Your task to perform on an android device: Set the phone to "Do not disturb". Image 0: 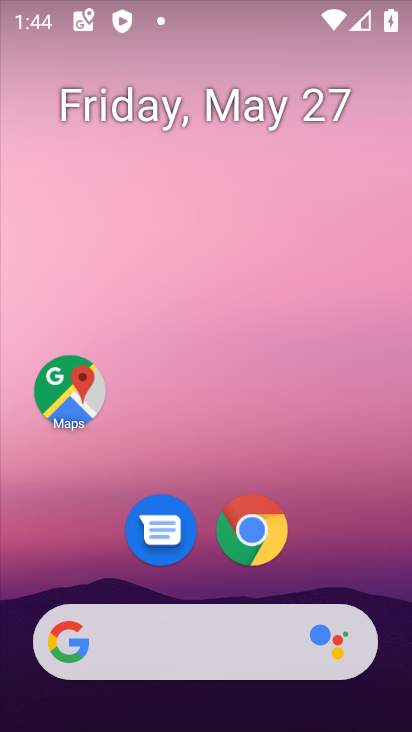
Step 0: drag from (206, 10) to (148, 637)
Your task to perform on an android device: Set the phone to "Do not disturb". Image 1: 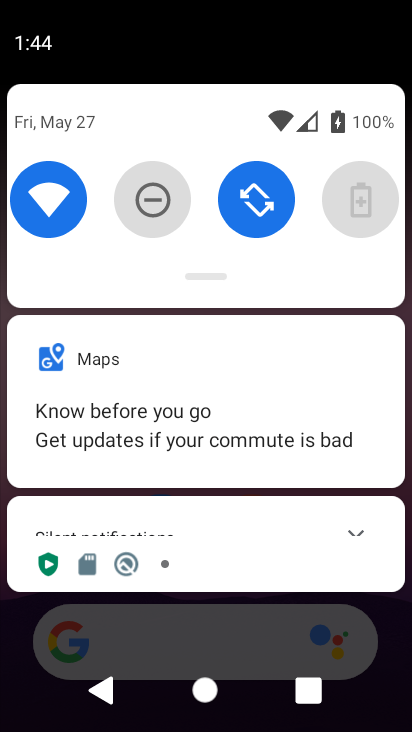
Step 1: drag from (211, 284) to (217, 673)
Your task to perform on an android device: Set the phone to "Do not disturb". Image 2: 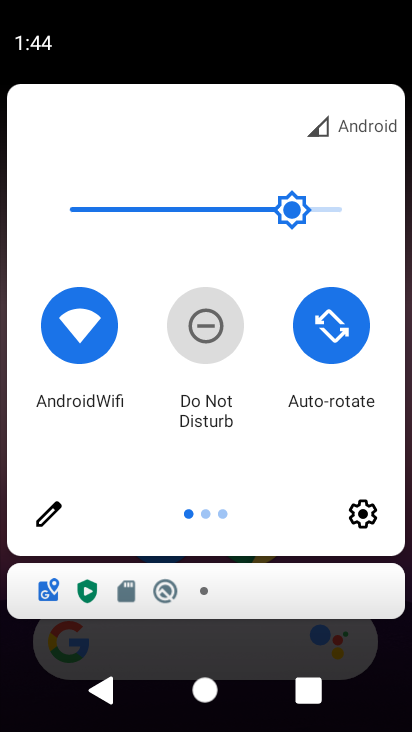
Step 2: click (200, 340)
Your task to perform on an android device: Set the phone to "Do not disturb". Image 3: 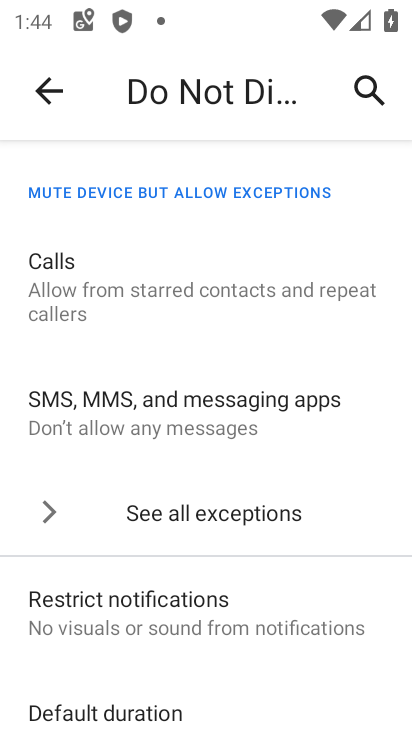
Step 3: drag from (288, 588) to (294, 196)
Your task to perform on an android device: Set the phone to "Do not disturb". Image 4: 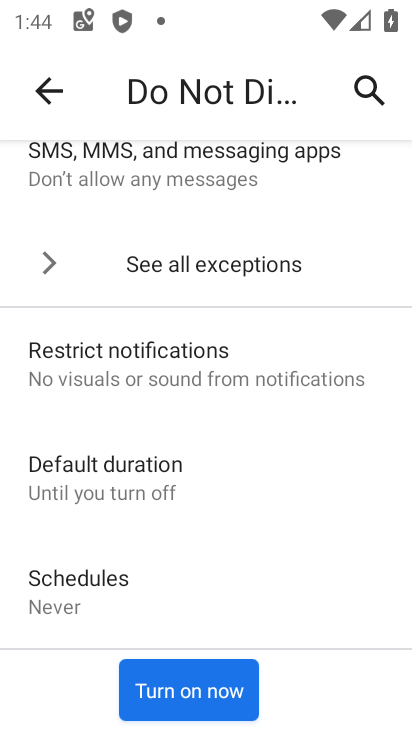
Step 4: click (221, 700)
Your task to perform on an android device: Set the phone to "Do not disturb". Image 5: 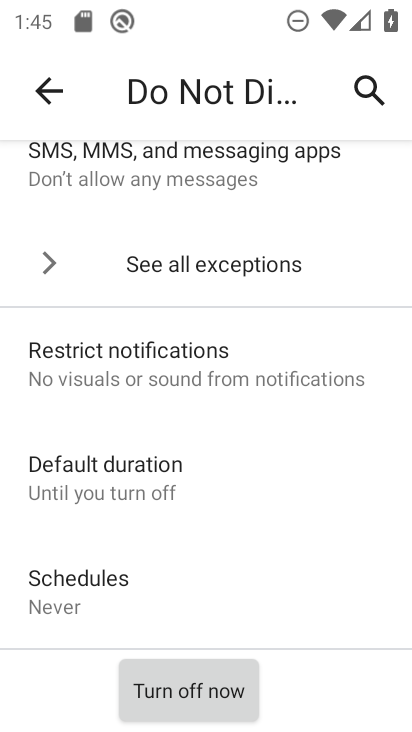
Step 5: task complete